Your task to perform on an android device: Open Google Chrome and click the shortcut for Amazon.com Image 0: 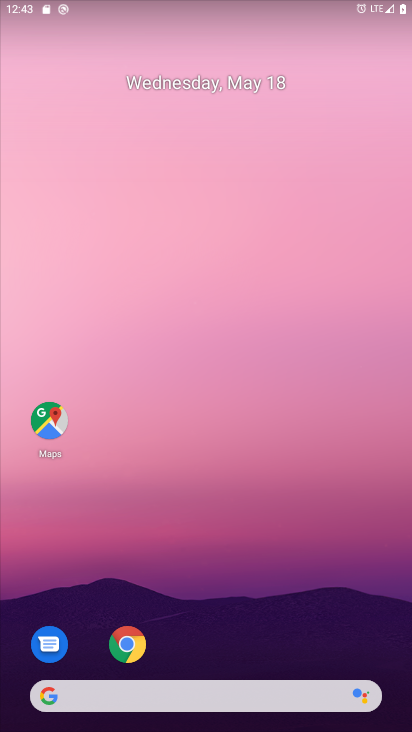
Step 0: press home button
Your task to perform on an android device: Open Google Chrome and click the shortcut for Amazon.com Image 1: 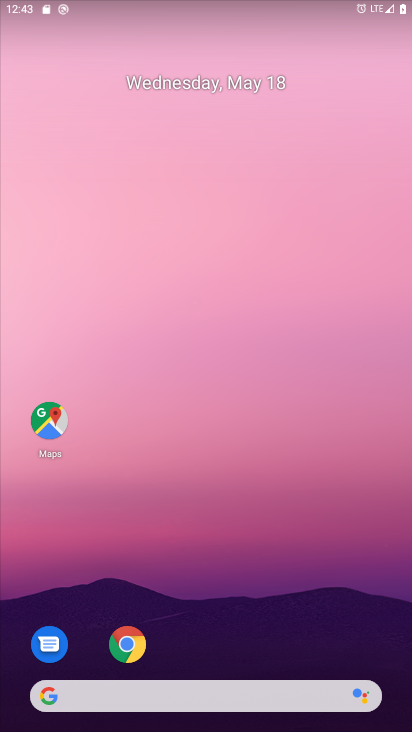
Step 1: press home button
Your task to perform on an android device: Open Google Chrome and click the shortcut for Amazon.com Image 2: 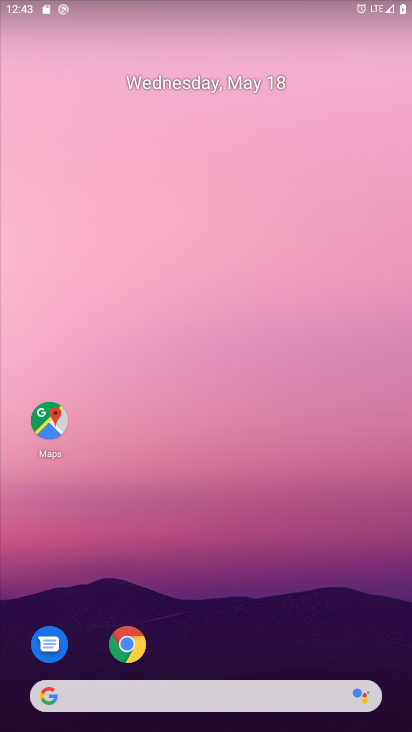
Step 2: press home button
Your task to perform on an android device: Open Google Chrome and click the shortcut for Amazon.com Image 3: 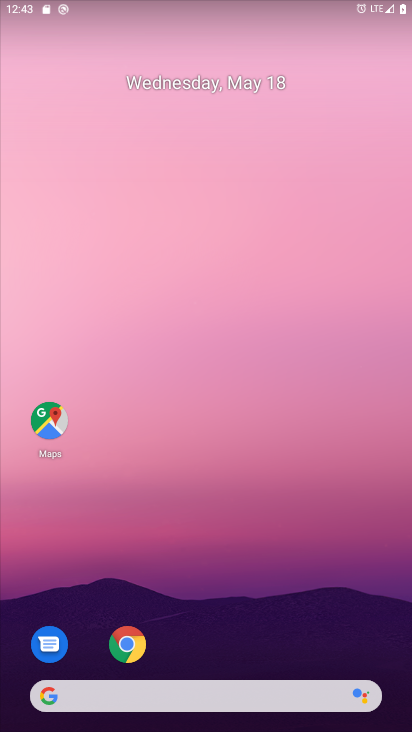
Step 3: click (131, 643)
Your task to perform on an android device: Open Google Chrome and click the shortcut for Amazon.com Image 4: 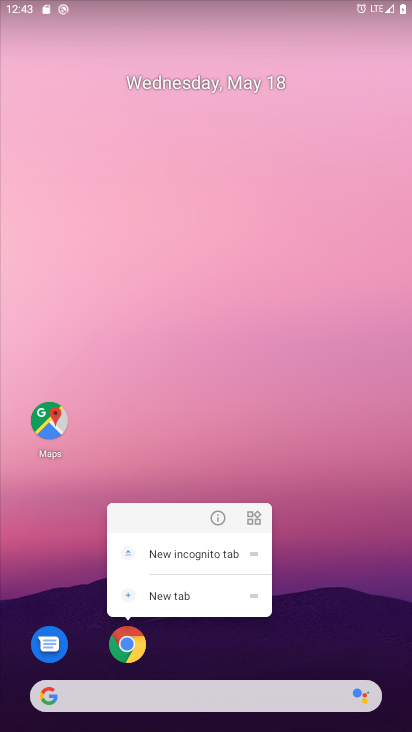
Step 4: click (135, 638)
Your task to perform on an android device: Open Google Chrome and click the shortcut for Amazon.com Image 5: 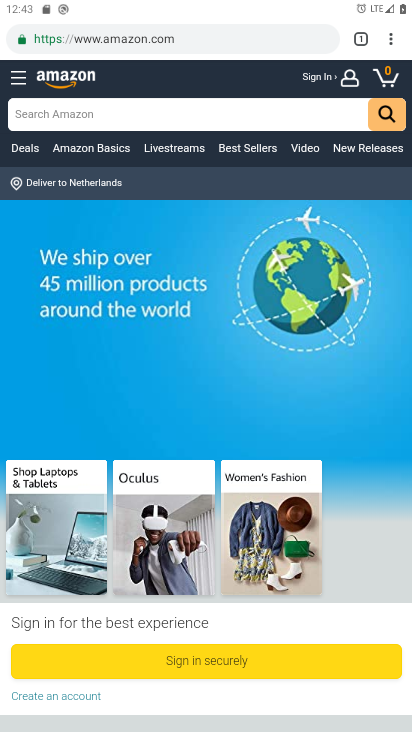
Step 5: task complete